Your task to perform on an android device: delete a single message in the gmail app Image 0: 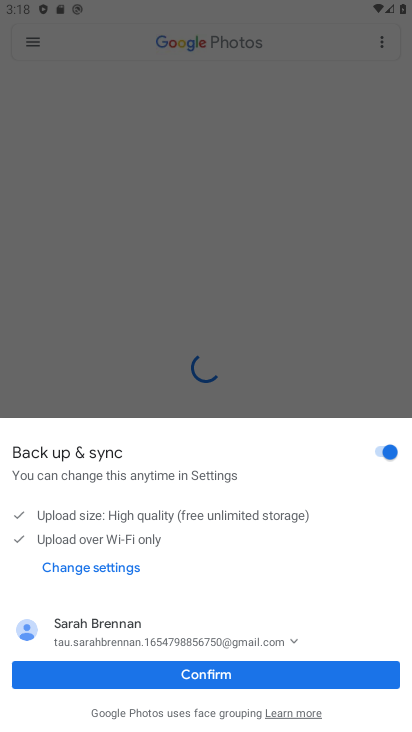
Step 0: press home button
Your task to perform on an android device: delete a single message in the gmail app Image 1: 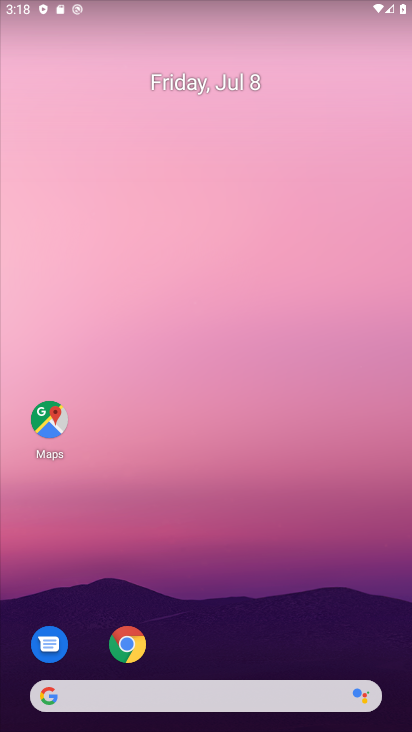
Step 1: drag from (220, 658) to (294, 177)
Your task to perform on an android device: delete a single message in the gmail app Image 2: 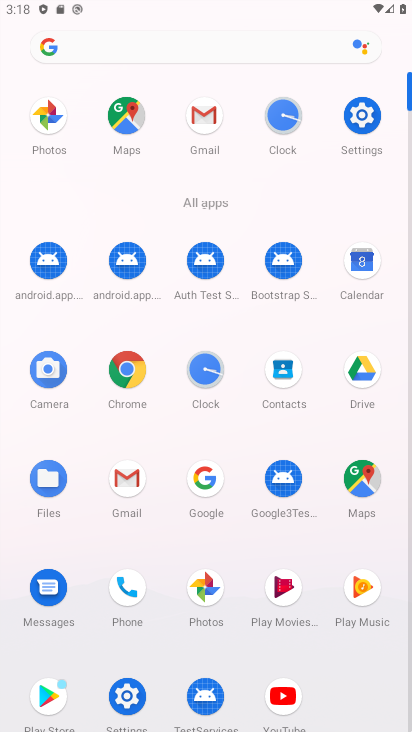
Step 2: click (128, 484)
Your task to perform on an android device: delete a single message in the gmail app Image 3: 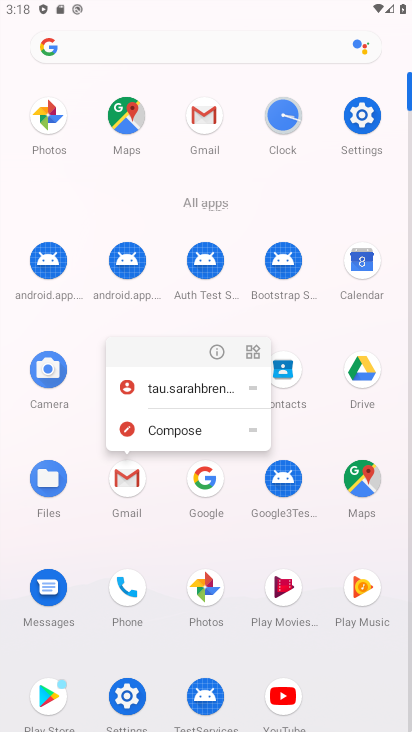
Step 3: click (125, 496)
Your task to perform on an android device: delete a single message in the gmail app Image 4: 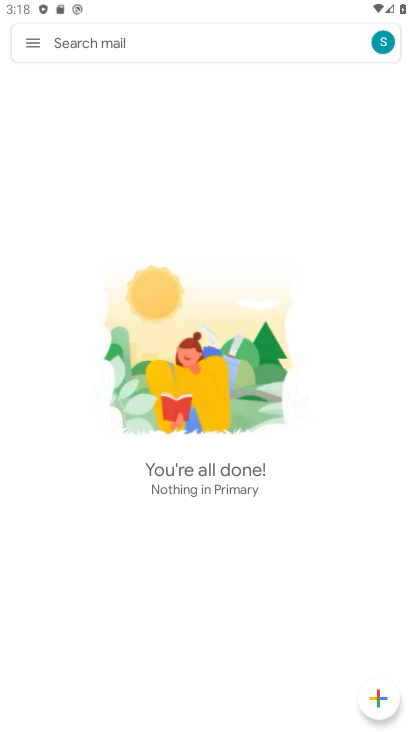
Step 4: task complete